Your task to perform on an android device: Go to privacy settings Image 0: 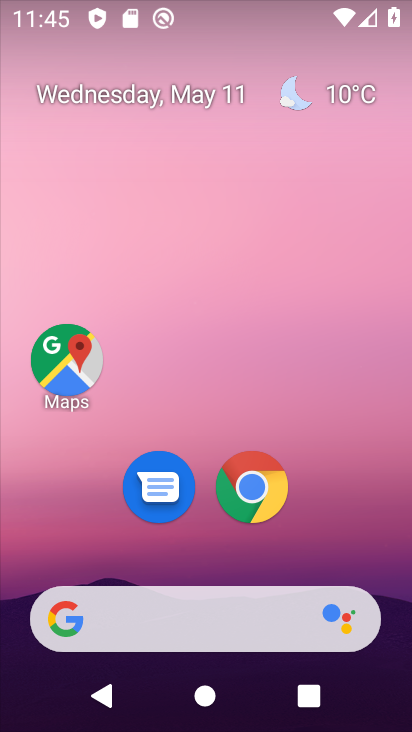
Step 0: drag from (201, 543) to (400, 121)
Your task to perform on an android device: Go to privacy settings Image 1: 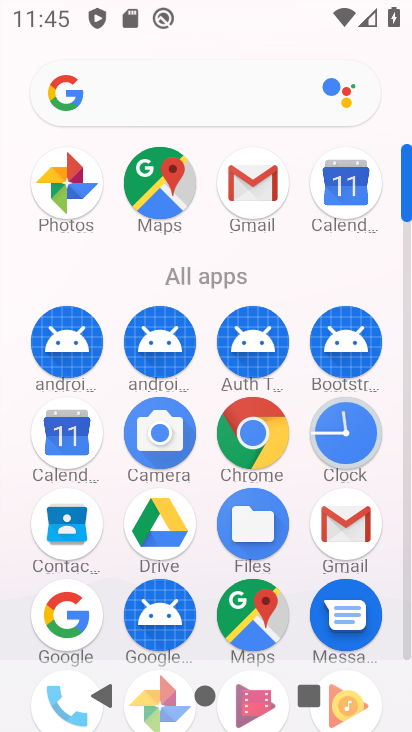
Step 1: drag from (177, 507) to (313, 90)
Your task to perform on an android device: Go to privacy settings Image 2: 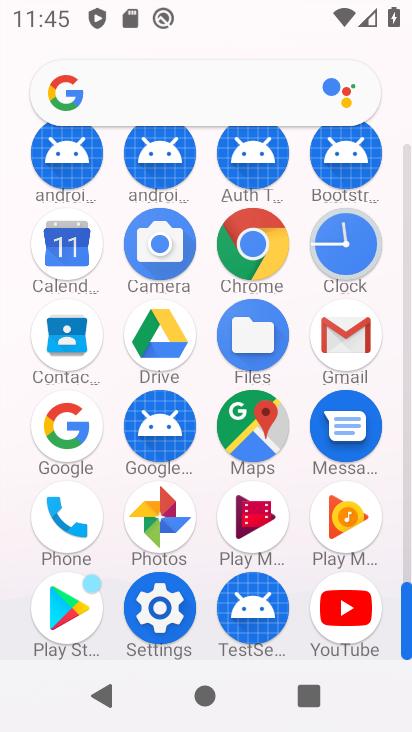
Step 2: click (149, 591)
Your task to perform on an android device: Go to privacy settings Image 3: 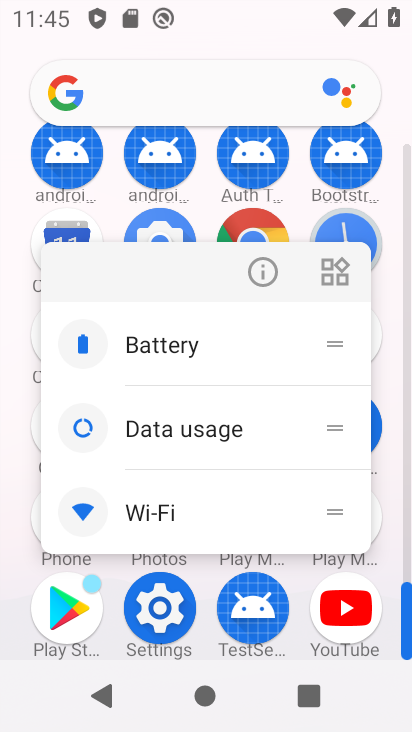
Step 3: click (152, 602)
Your task to perform on an android device: Go to privacy settings Image 4: 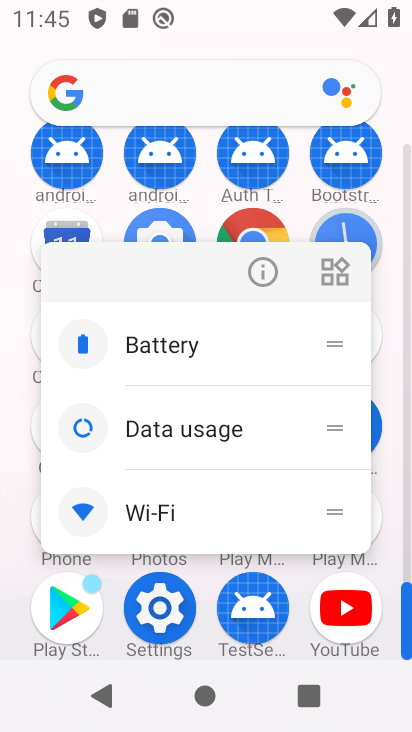
Step 4: click (152, 602)
Your task to perform on an android device: Go to privacy settings Image 5: 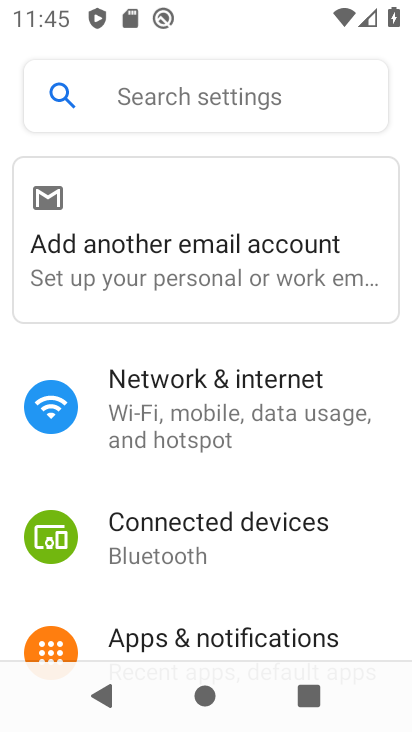
Step 5: drag from (152, 602) to (178, 253)
Your task to perform on an android device: Go to privacy settings Image 6: 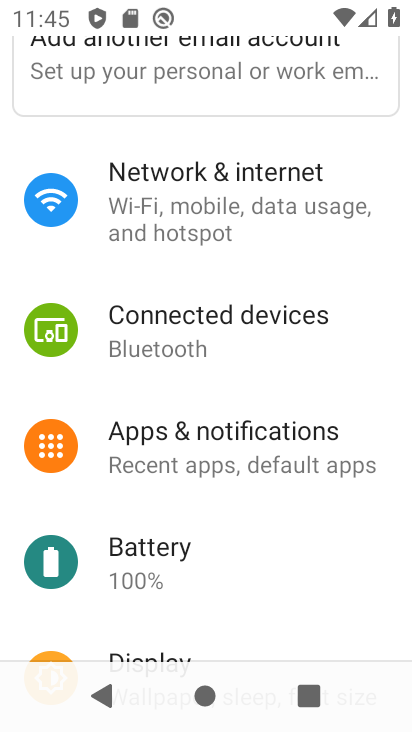
Step 6: drag from (185, 606) to (176, 238)
Your task to perform on an android device: Go to privacy settings Image 7: 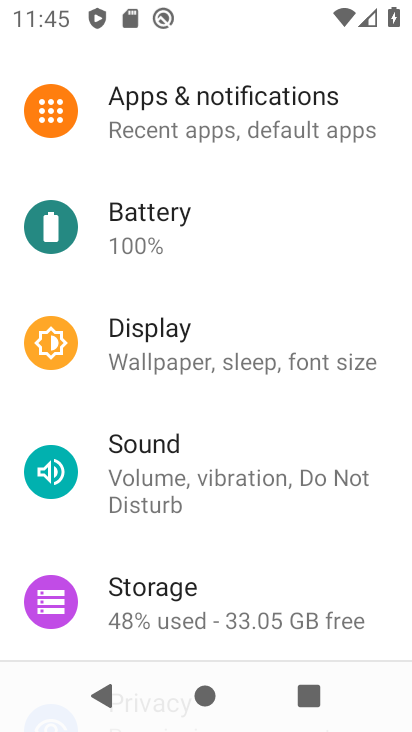
Step 7: drag from (111, 565) to (292, 209)
Your task to perform on an android device: Go to privacy settings Image 8: 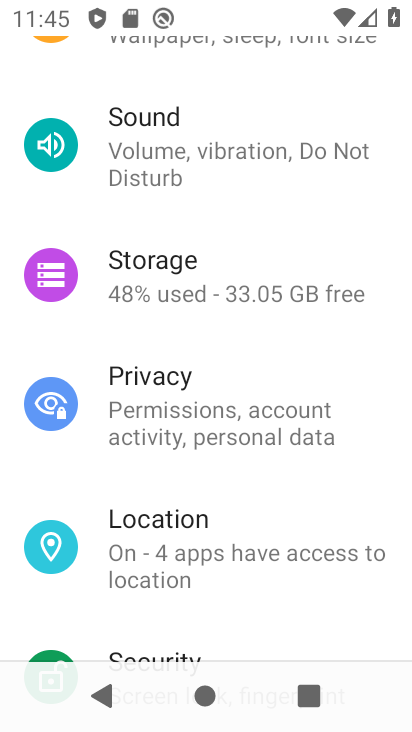
Step 8: click (172, 384)
Your task to perform on an android device: Go to privacy settings Image 9: 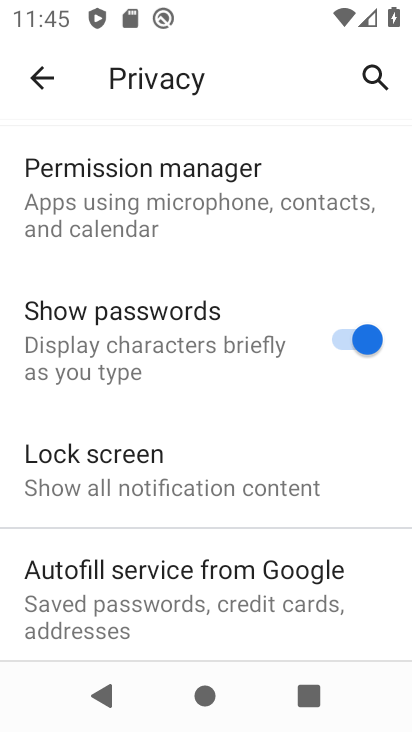
Step 9: task complete